Your task to perform on an android device: turn off priority inbox in the gmail app Image 0: 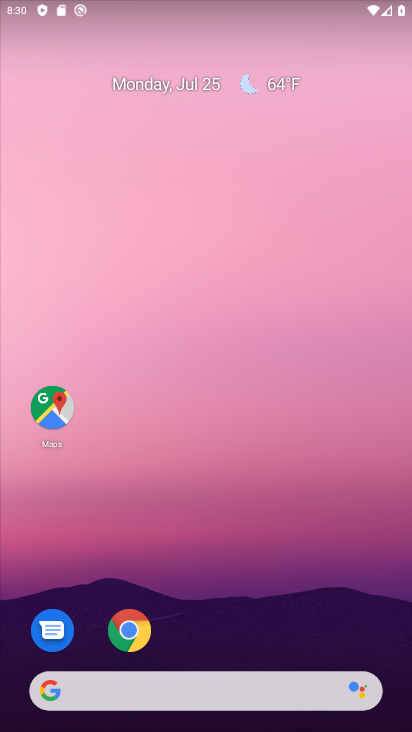
Step 0: drag from (363, 632) to (326, 181)
Your task to perform on an android device: turn off priority inbox in the gmail app Image 1: 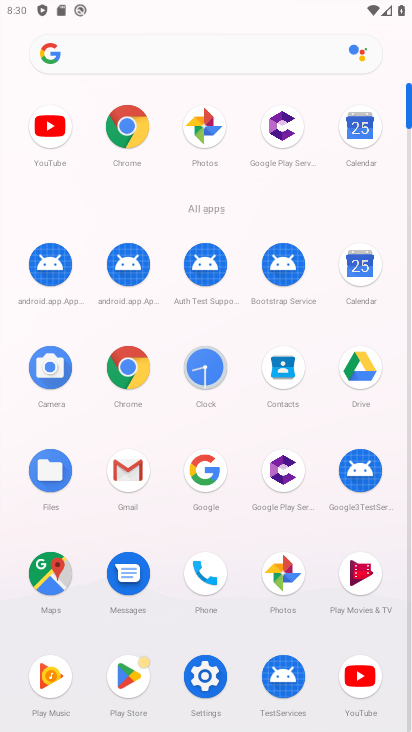
Step 1: click (126, 471)
Your task to perform on an android device: turn off priority inbox in the gmail app Image 2: 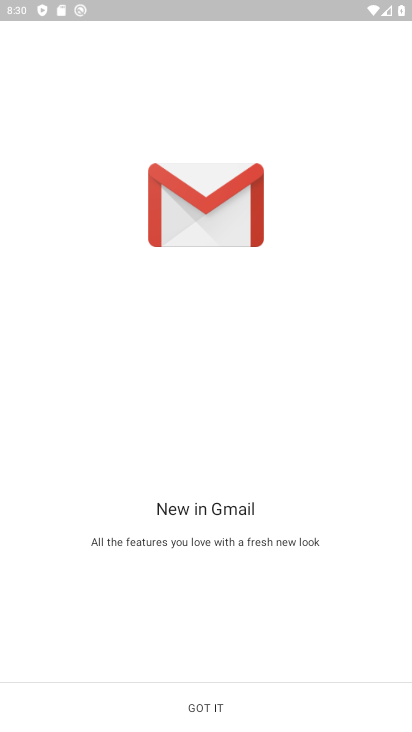
Step 2: click (201, 704)
Your task to perform on an android device: turn off priority inbox in the gmail app Image 3: 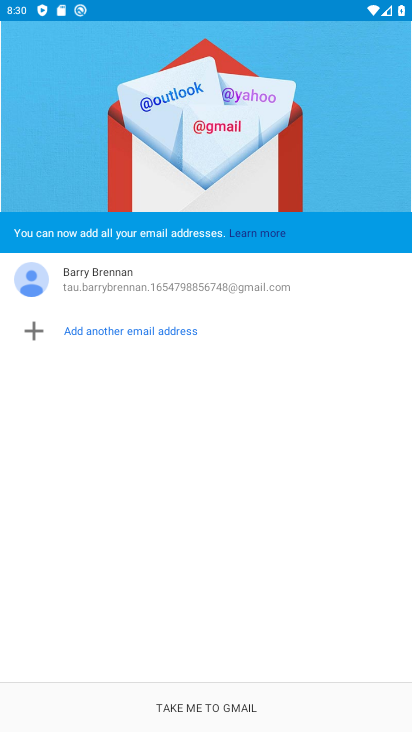
Step 3: click (203, 710)
Your task to perform on an android device: turn off priority inbox in the gmail app Image 4: 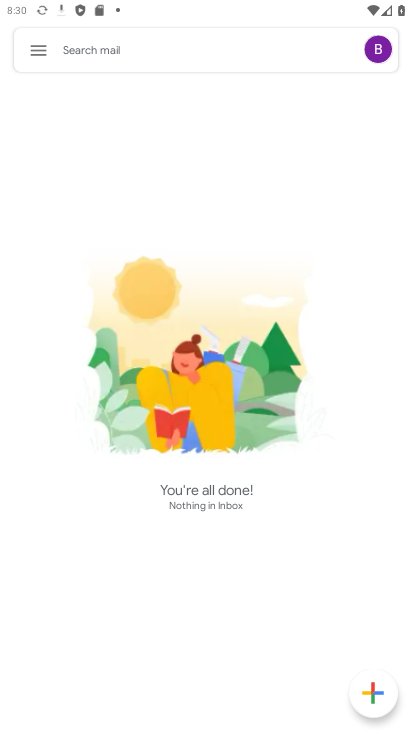
Step 4: click (40, 54)
Your task to perform on an android device: turn off priority inbox in the gmail app Image 5: 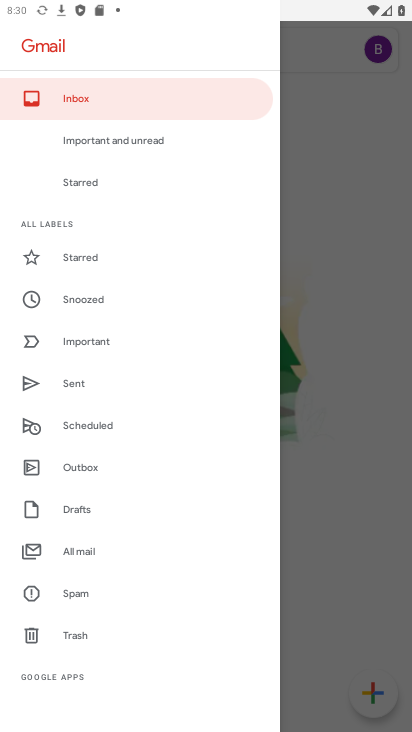
Step 5: drag from (94, 654) to (117, 349)
Your task to perform on an android device: turn off priority inbox in the gmail app Image 6: 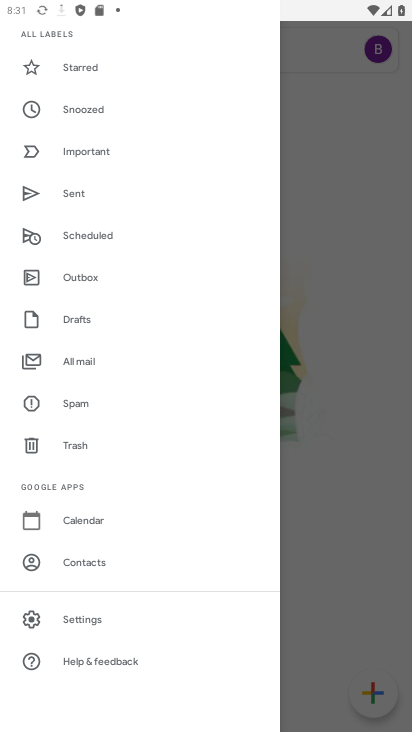
Step 6: click (88, 619)
Your task to perform on an android device: turn off priority inbox in the gmail app Image 7: 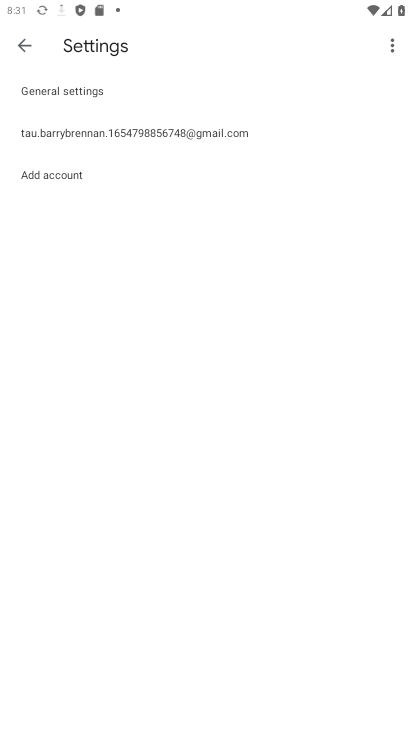
Step 7: click (132, 134)
Your task to perform on an android device: turn off priority inbox in the gmail app Image 8: 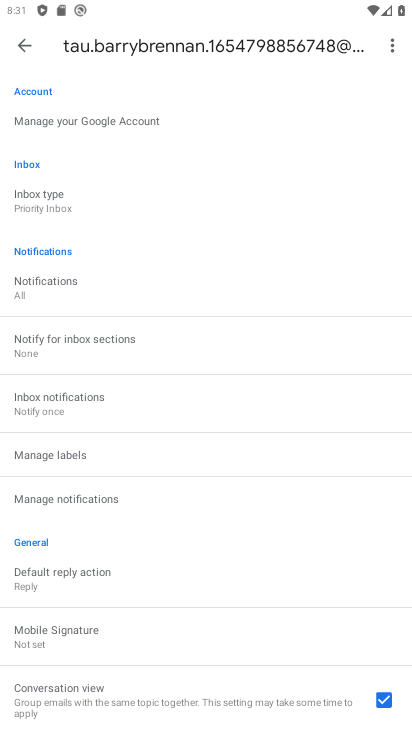
Step 8: click (50, 198)
Your task to perform on an android device: turn off priority inbox in the gmail app Image 9: 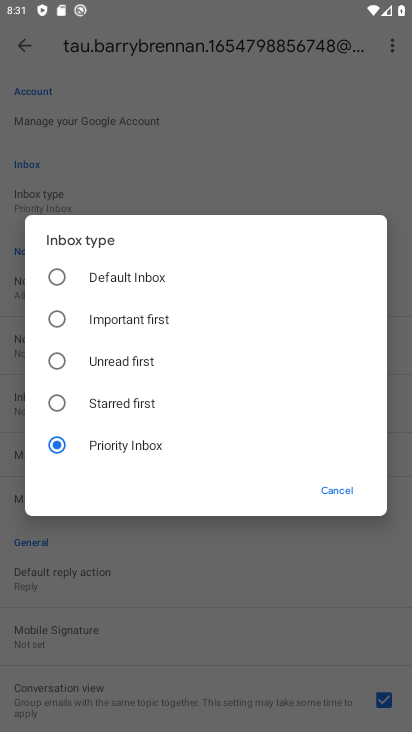
Step 9: click (60, 282)
Your task to perform on an android device: turn off priority inbox in the gmail app Image 10: 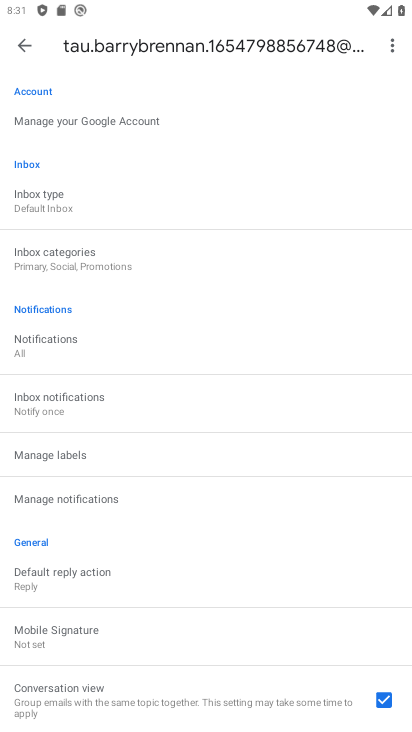
Step 10: task complete